Your task to perform on an android device: Search for sushi restaurants on Maps Image 0: 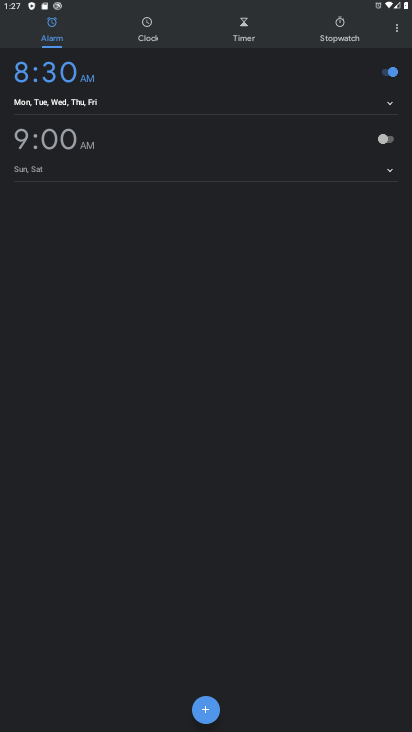
Step 0: press home button
Your task to perform on an android device: Search for sushi restaurants on Maps Image 1: 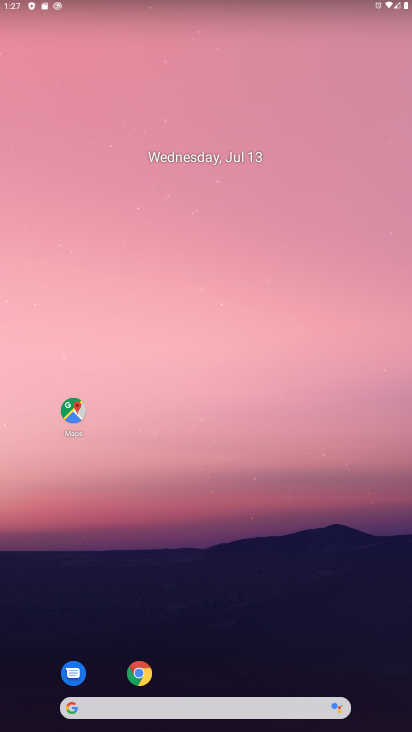
Step 1: click (71, 410)
Your task to perform on an android device: Search for sushi restaurants on Maps Image 2: 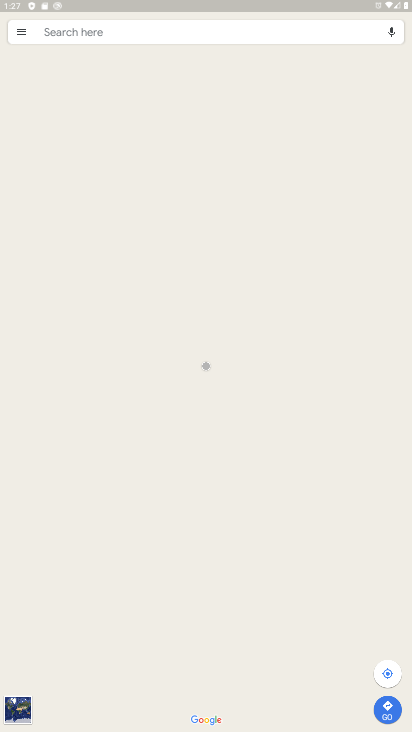
Step 2: click (175, 33)
Your task to perform on an android device: Search for sushi restaurants on Maps Image 3: 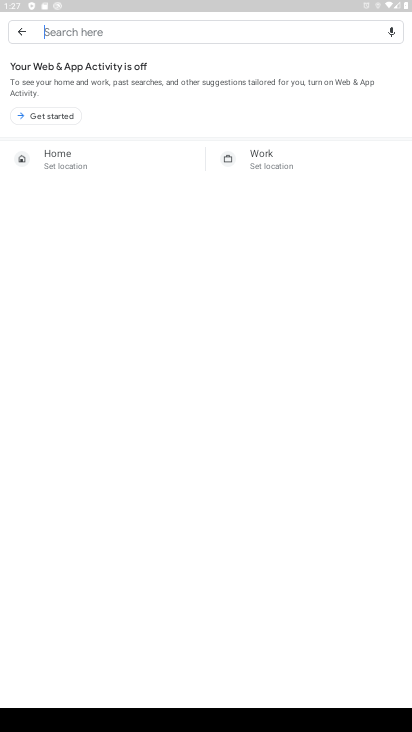
Step 3: type "sushi restaurents"
Your task to perform on an android device: Search for sushi restaurants on Maps Image 4: 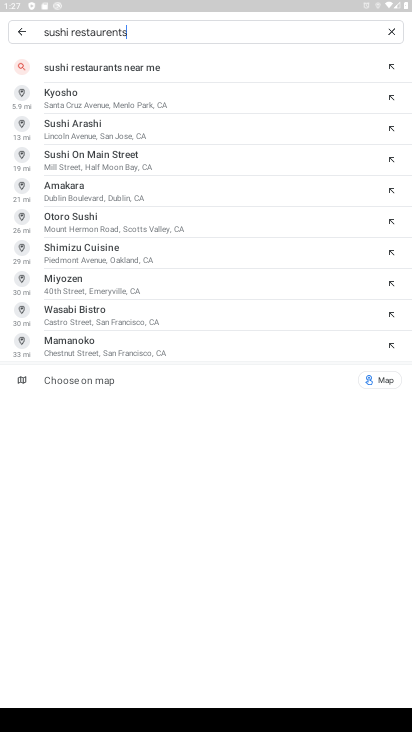
Step 4: click (111, 68)
Your task to perform on an android device: Search for sushi restaurants on Maps Image 5: 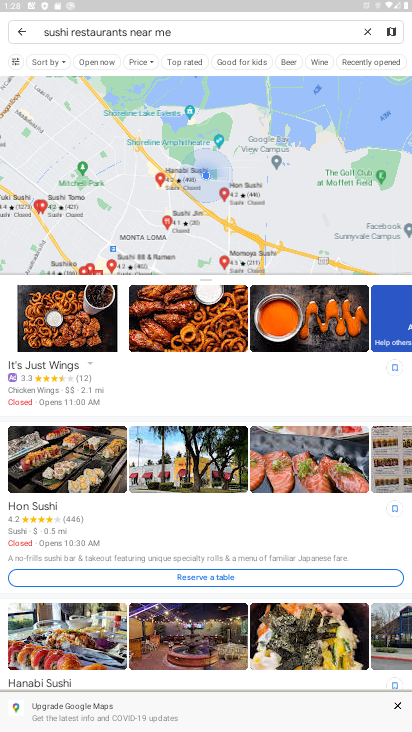
Step 5: task complete